Your task to perform on an android device: Open maps Image 0: 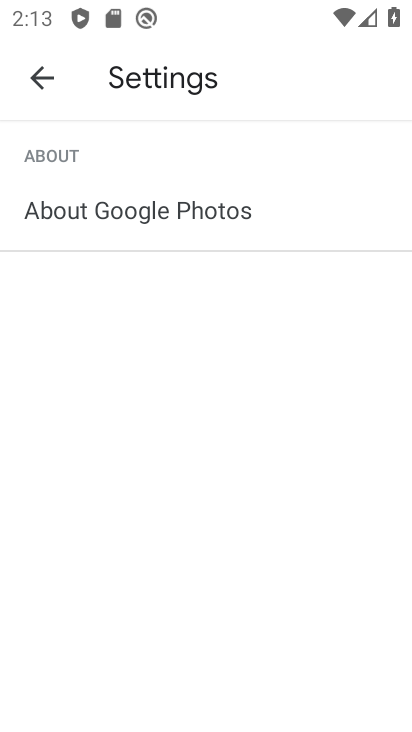
Step 0: press home button
Your task to perform on an android device: Open maps Image 1: 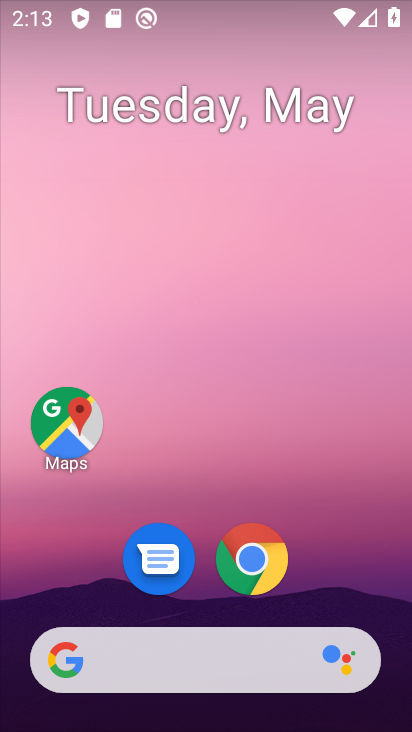
Step 1: click (63, 428)
Your task to perform on an android device: Open maps Image 2: 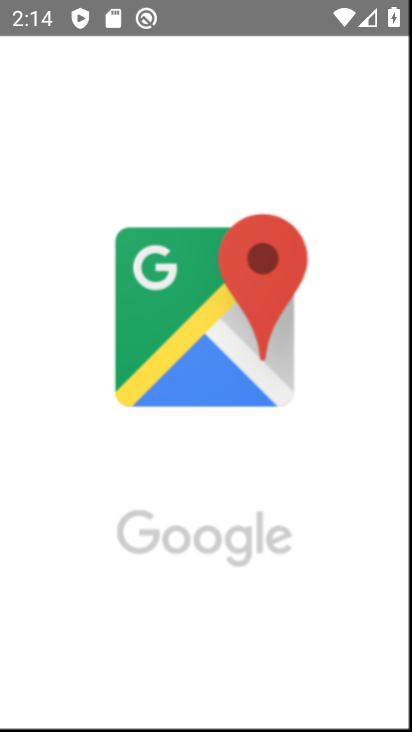
Step 2: task complete